Your task to perform on an android device: change the upload size in google photos Image 0: 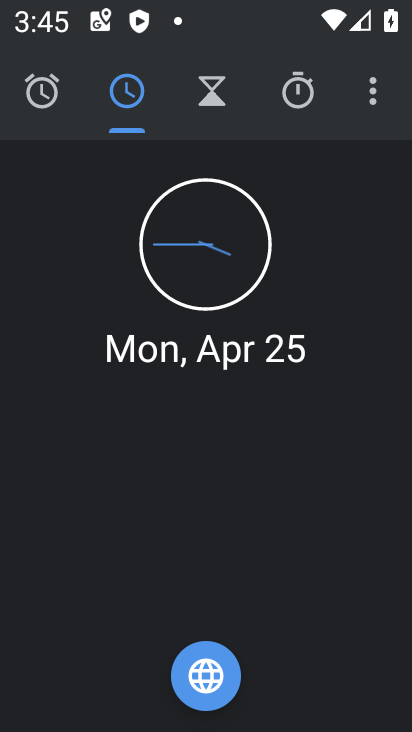
Step 0: press home button
Your task to perform on an android device: change the upload size in google photos Image 1: 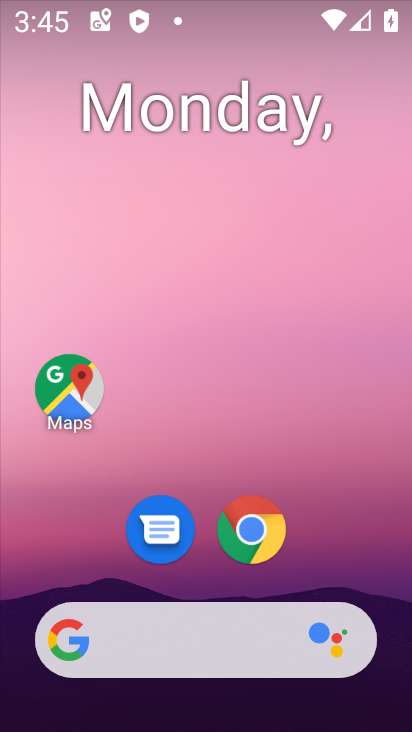
Step 1: drag from (230, 668) to (230, 220)
Your task to perform on an android device: change the upload size in google photos Image 2: 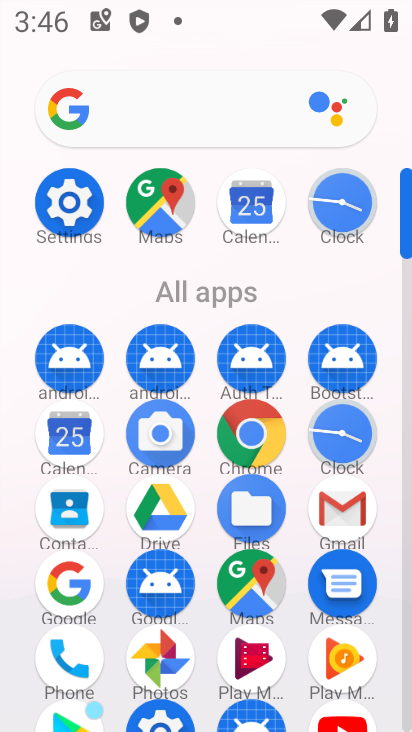
Step 2: click (162, 660)
Your task to perform on an android device: change the upload size in google photos Image 3: 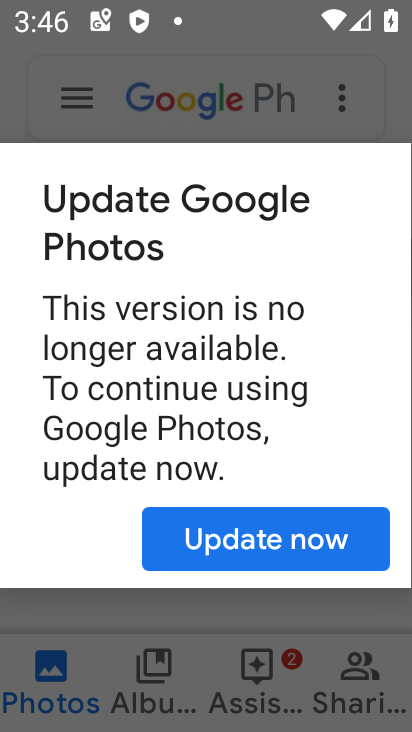
Step 3: task complete